Your task to perform on an android device: turn on the 12-hour format for clock Image 0: 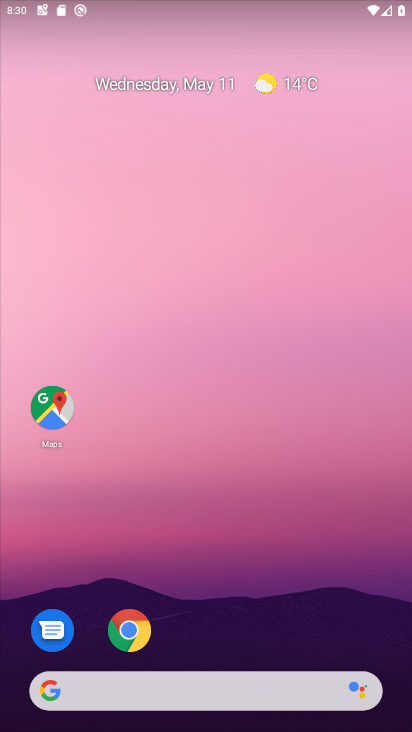
Step 0: press home button
Your task to perform on an android device: turn on the 12-hour format for clock Image 1: 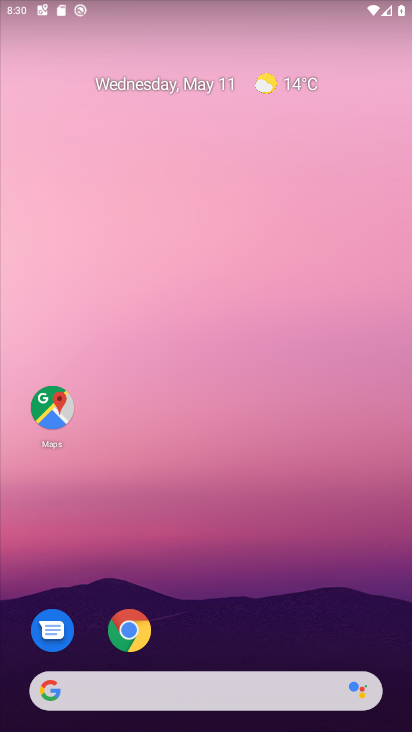
Step 1: press home button
Your task to perform on an android device: turn on the 12-hour format for clock Image 2: 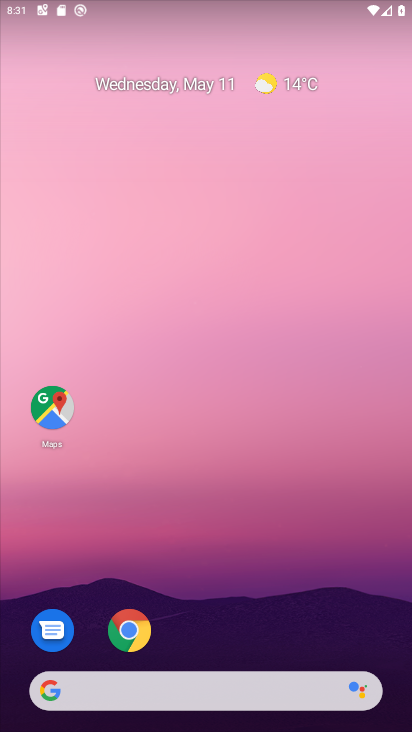
Step 2: drag from (89, 569) to (402, 119)
Your task to perform on an android device: turn on the 12-hour format for clock Image 3: 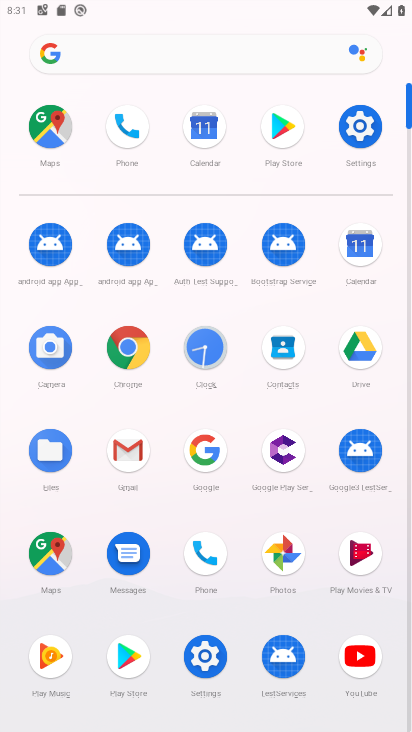
Step 3: click (197, 352)
Your task to perform on an android device: turn on the 12-hour format for clock Image 4: 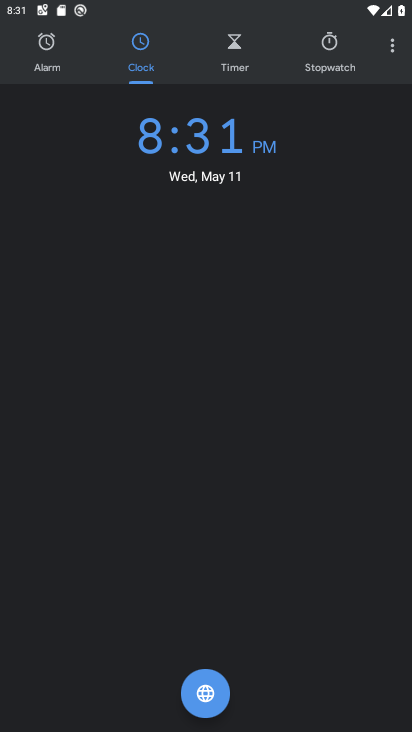
Step 4: click (382, 45)
Your task to perform on an android device: turn on the 12-hour format for clock Image 5: 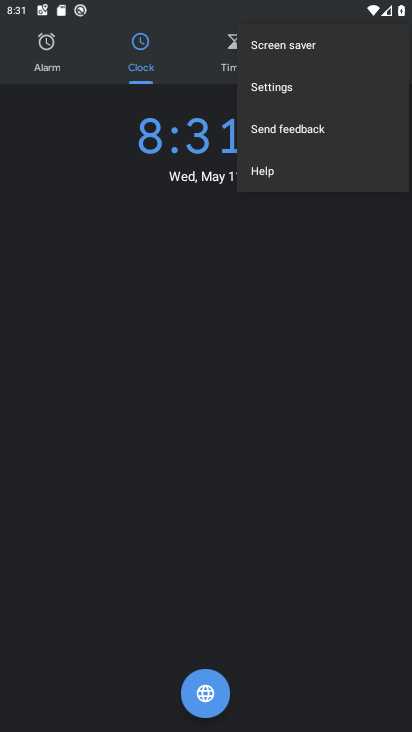
Step 5: click (300, 87)
Your task to perform on an android device: turn on the 12-hour format for clock Image 6: 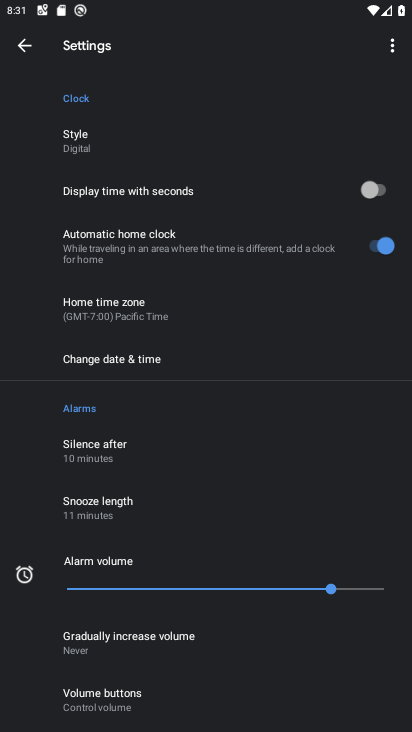
Step 6: task complete